Your task to perform on an android device: Open calendar and show me the second week of next month Image 0: 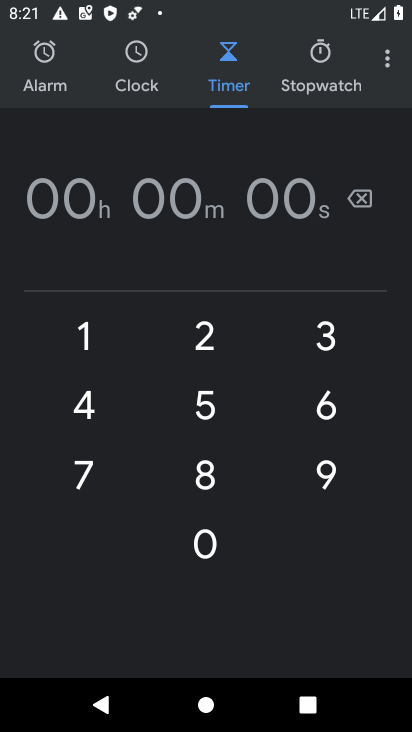
Step 0: press home button
Your task to perform on an android device: Open calendar and show me the second week of next month Image 1: 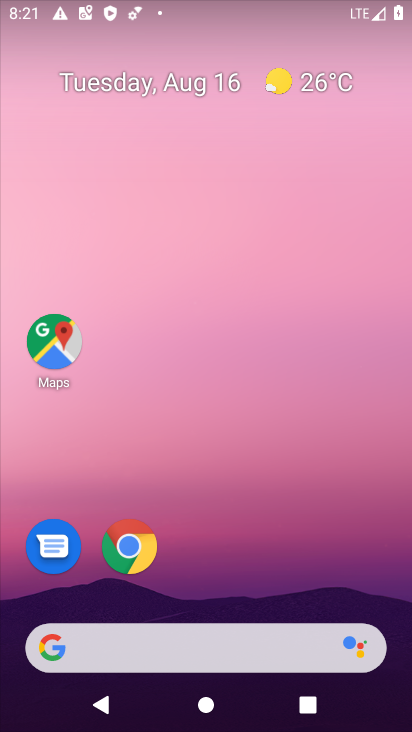
Step 1: drag from (278, 516) to (336, 1)
Your task to perform on an android device: Open calendar and show me the second week of next month Image 2: 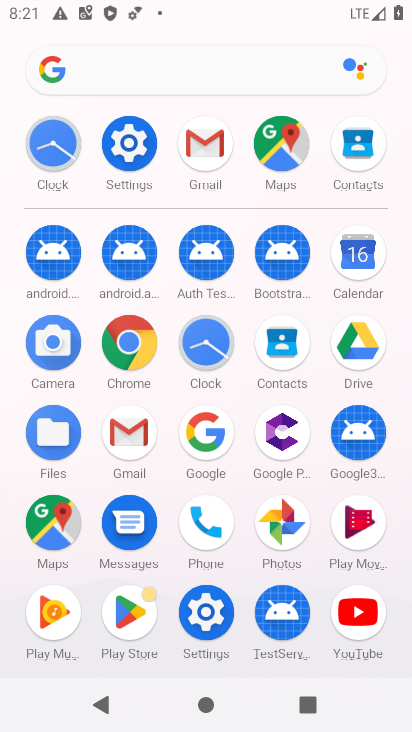
Step 2: click (357, 248)
Your task to perform on an android device: Open calendar and show me the second week of next month Image 3: 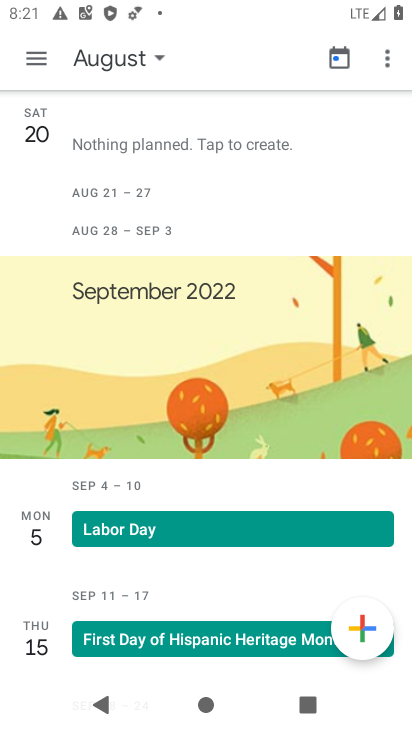
Step 3: click (39, 54)
Your task to perform on an android device: Open calendar and show me the second week of next month Image 4: 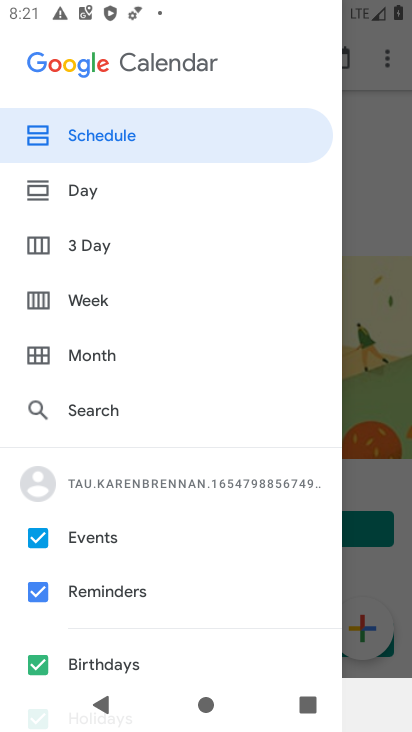
Step 4: click (39, 354)
Your task to perform on an android device: Open calendar and show me the second week of next month Image 5: 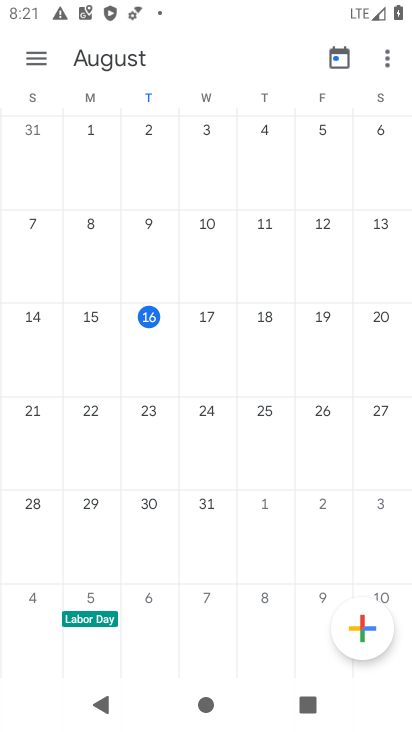
Step 5: drag from (371, 363) to (0, 256)
Your task to perform on an android device: Open calendar and show me the second week of next month Image 6: 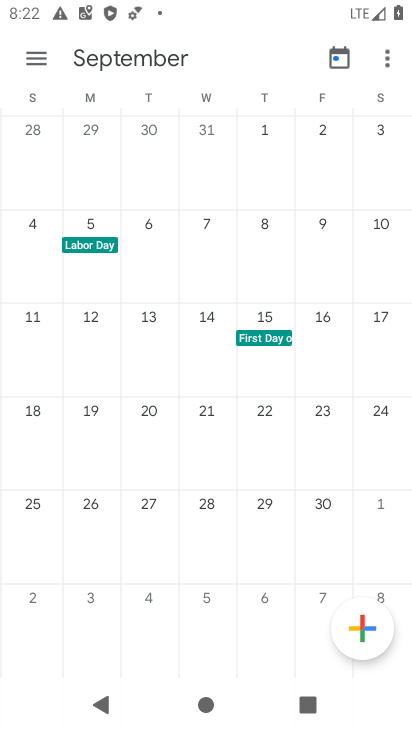
Step 6: click (37, 314)
Your task to perform on an android device: Open calendar and show me the second week of next month Image 7: 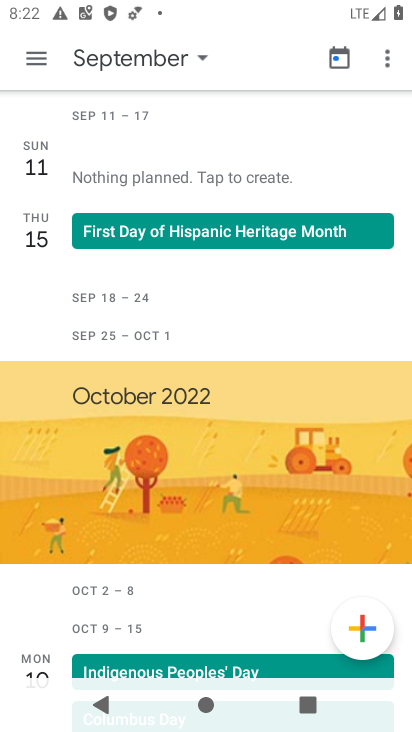
Step 7: click (34, 47)
Your task to perform on an android device: Open calendar and show me the second week of next month Image 8: 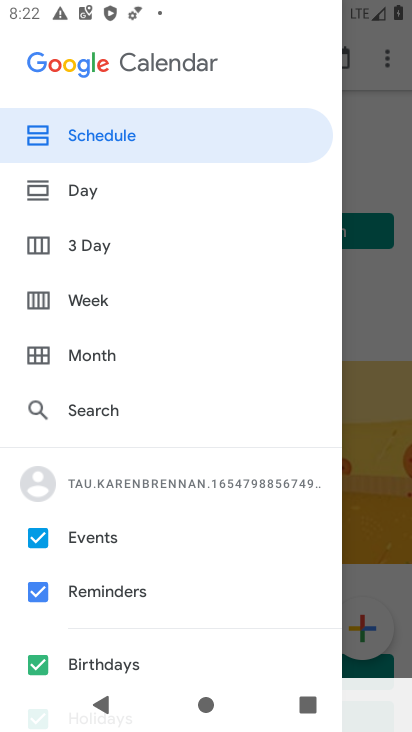
Step 8: click (37, 294)
Your task to perform on an android device: Open calendar and show me the second week of next month Image 9: 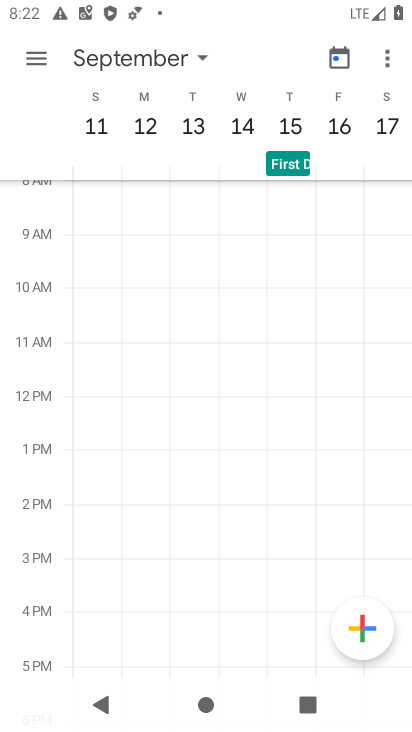
Step 9: task complete